Your task to perform on an android device: manage bookmarks in the chrome app Image 0: 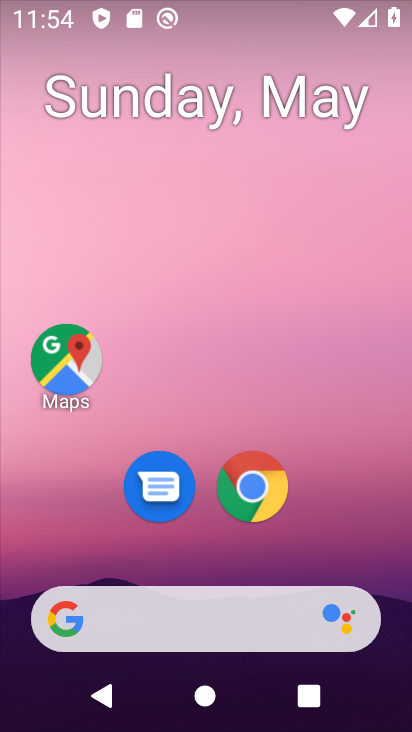
Step 0: click (252, 487)
Your task to perform on an android device: manage bookmarks in the chrome app Image 1: 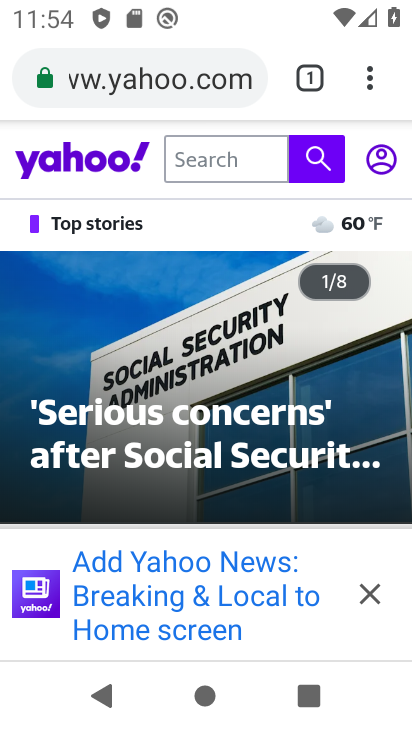
Step 1: click (367, 80)
Your task to perform on an android device: manage bookmarks in the chrome app Image 2: 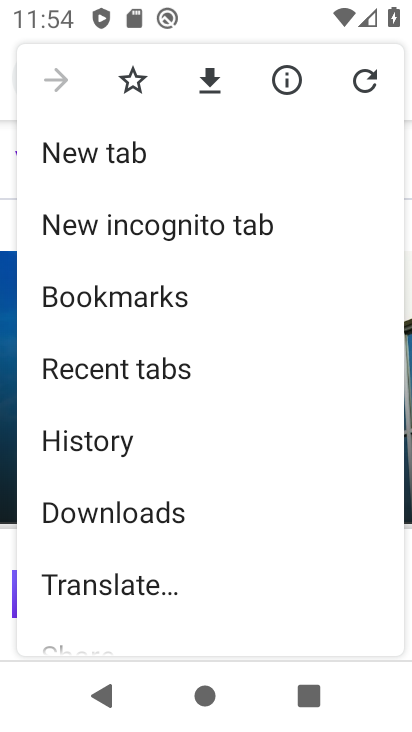
Step 2: drag from (222, 567) to (293, 290)
Your task to perform on an android device: manage bookmarks in the chrome app Image 3: 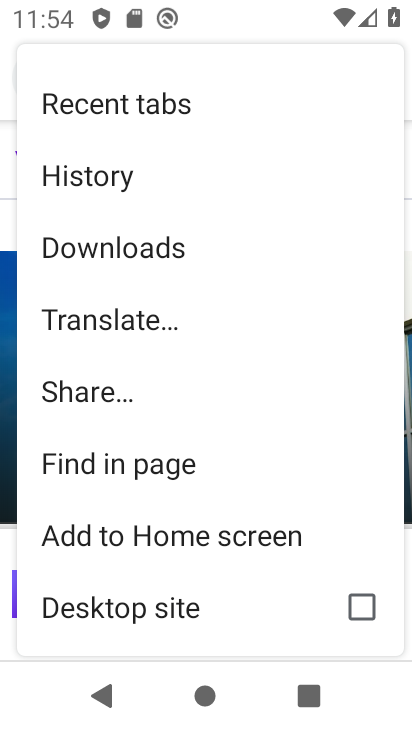
Step 3: drag from (259, 558) to (246, 447)
Your task to perform on an android device: manage bookmarks in the chrome app Image 4: 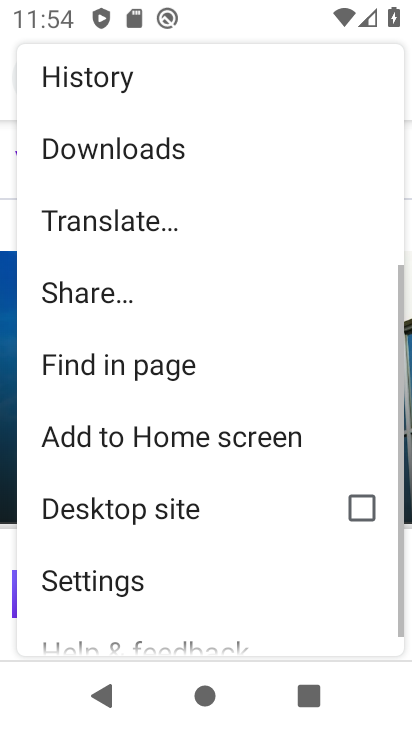
Step 4: drag from (244, 454) to (222, 640)
Your task to perform on an android device: manage bookmarks in the chrome app Image 5: 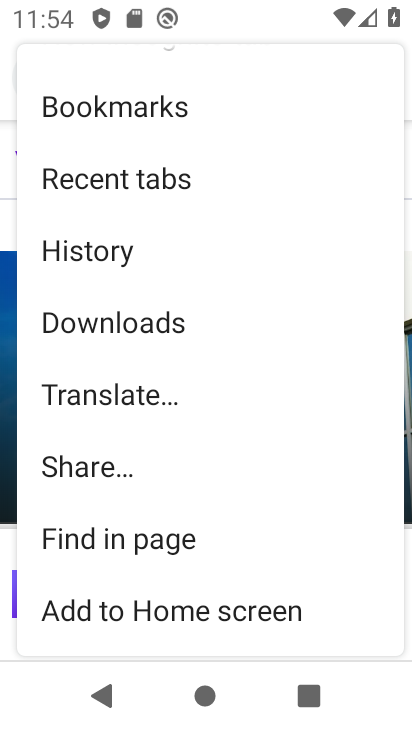
Step 5: click (91, 112)
Your task to perform on an android device: manage bookmarks in the chrome app Image 6: 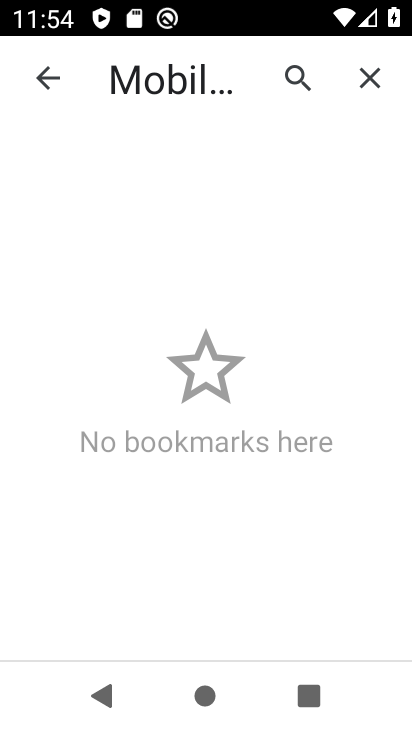
Step 6: task complete